Your task to perform on an android device: Open settings on Google Maps Image 0: 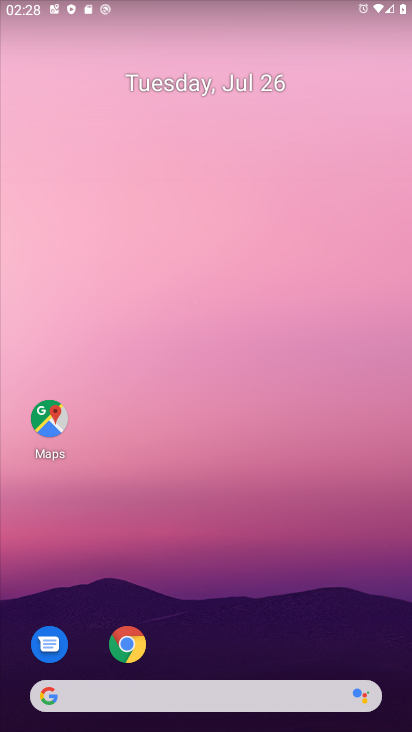
Step 0: drag from (246, 603) to (216, 181)
Your task to perform on an android device: Open settings on Google Maps Image 1: 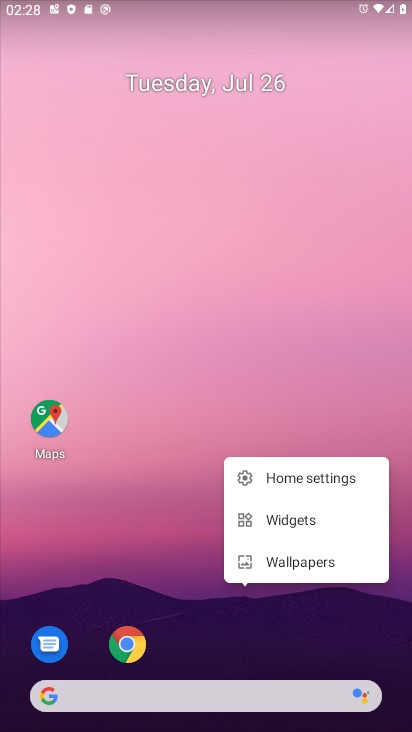
Step 1: click (94, 458)
Your task to perform on an android device: Open settings on Google Maps Image 2: 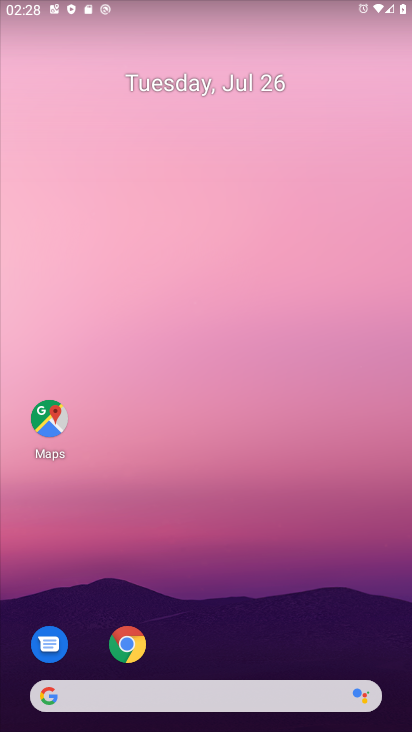
Step 2: drag from (193, 631) to (207, 276)
Your task to perform on an android device: Open settings on Google Maps Image 3: 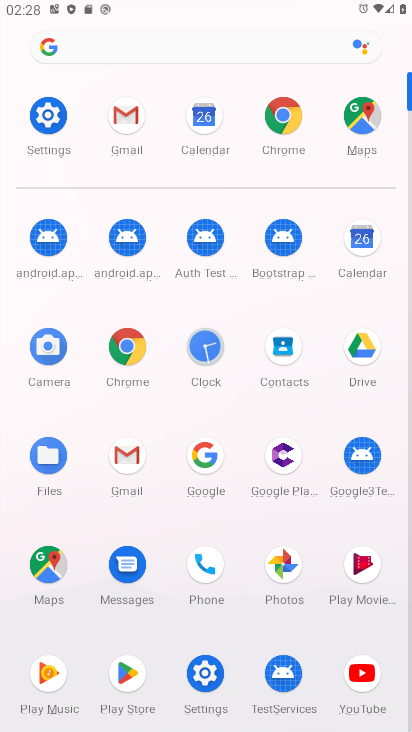
Step 3: click (354, 118)
Your task to perform on an android device: Open settings on Google Maps Image 4: 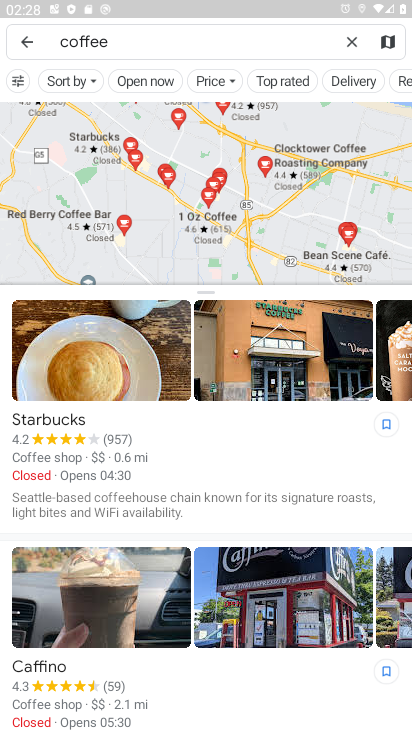
Step 4: click (348, 44)
Your task to perform on an android device: Open settings on Google Maps Image 5: 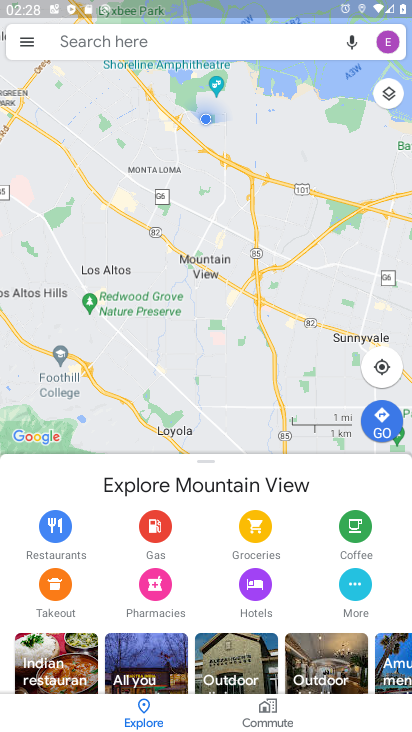
Step 5: click (33, 40)
Your task to perform on an android device: Open settings on Google Maps Image 6: 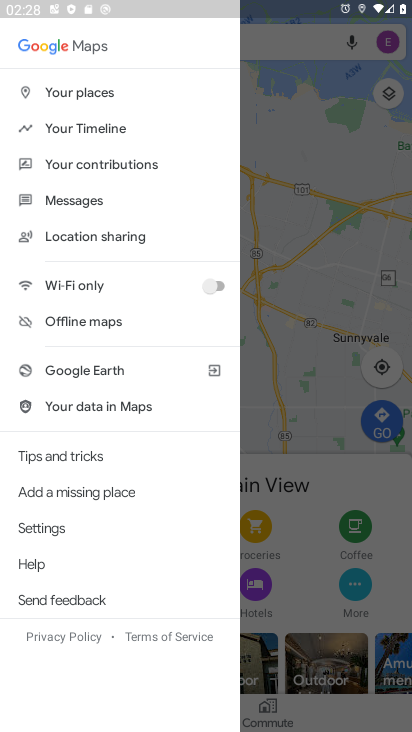
Step 6: click (55, 518)
Your task to perform on an android device: Open settings on Google Maps Image 7: 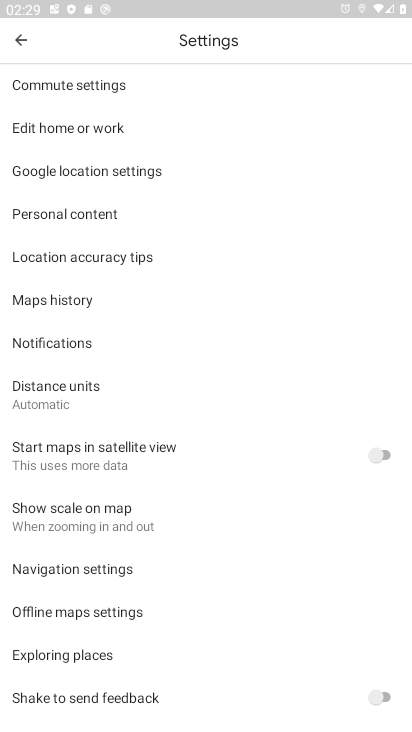
Step 7: task complete